Your task to perform on an android device: Search for Italian restaurants on Maps Image 0: 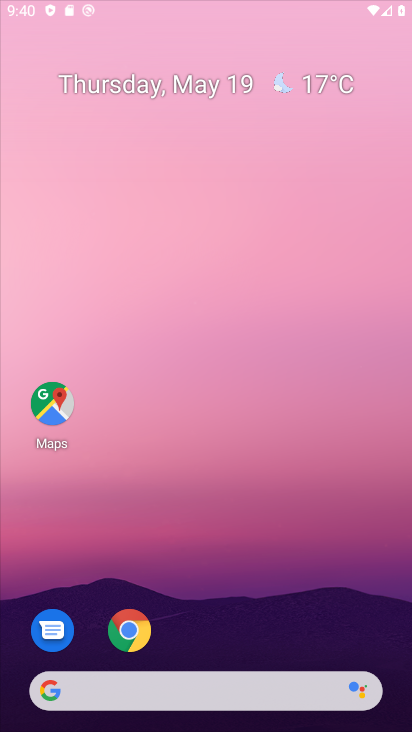
Step 0: press home button
Your task to perform on an android device: Search for Italian restaurants on Maps Image 1: 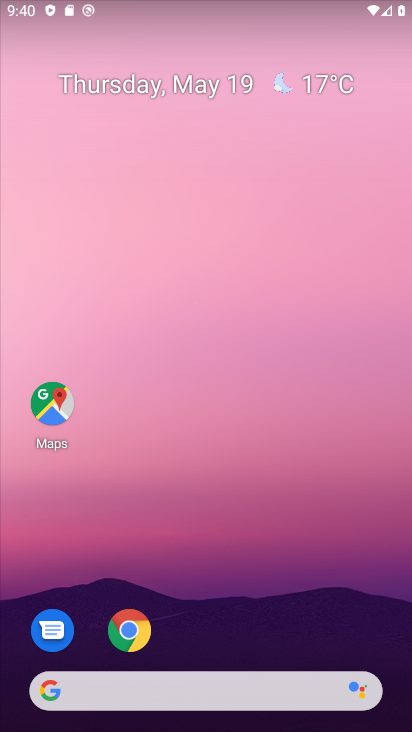
Step 1: click (47, 409)
Your task to perform on an android device: Search for Italian restaurants on Maps Image 2: 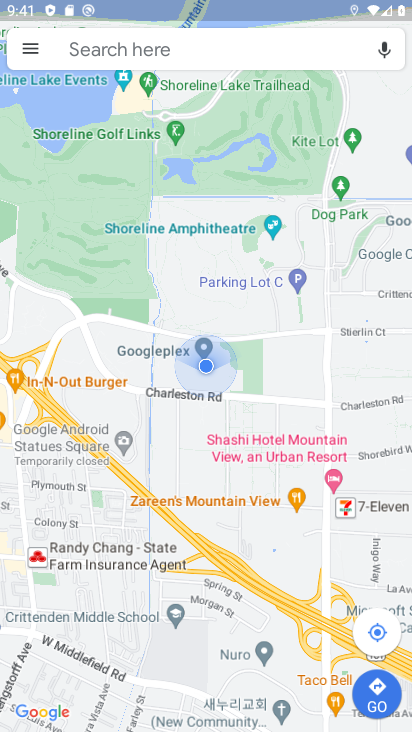
Step 2: click (86, 54)
Your task to perform on an android device: Search for Italian restaurants on Maps Image 3: 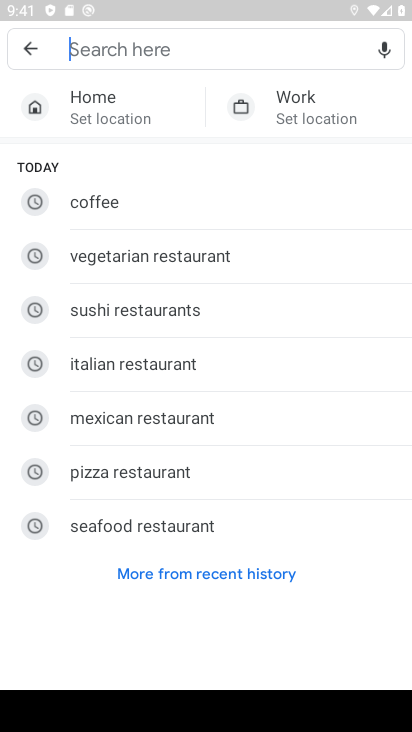
Step 3: click (152, 360)
Your task to perform on an android device: Search for Italian restaurants on Maps Image 4: 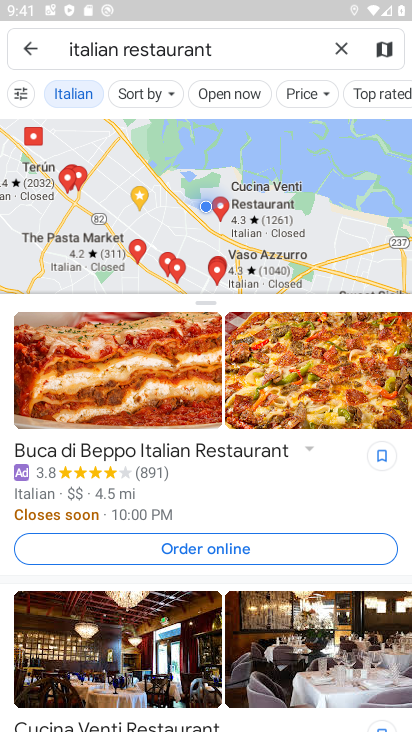
Step 4: task complete